Your task to perform on an android device: Go to privacy settings Image 0: 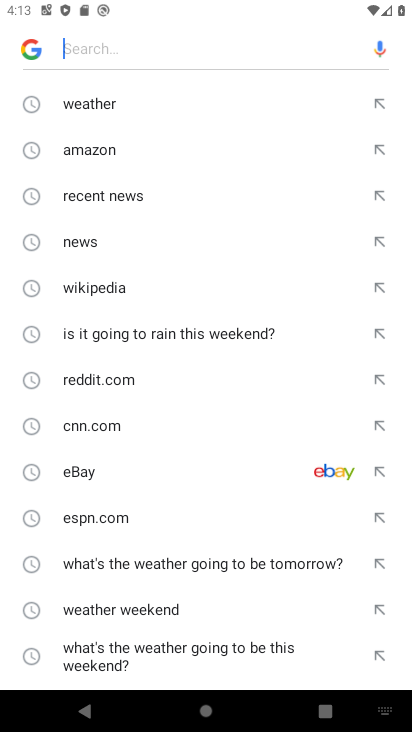
Step 0: press home button
Your task to perform on an android device: Go to privacy settings Image 1: 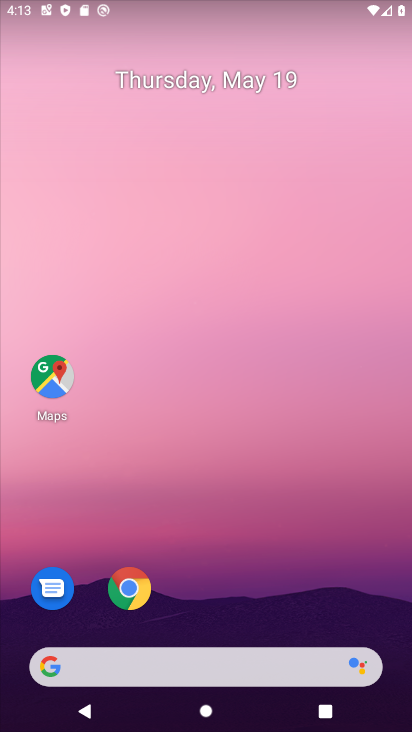
Step 1: drag from (241, 614) to (202, 268)
Your task to perform on an android device: Go to privacy settings Image 2: 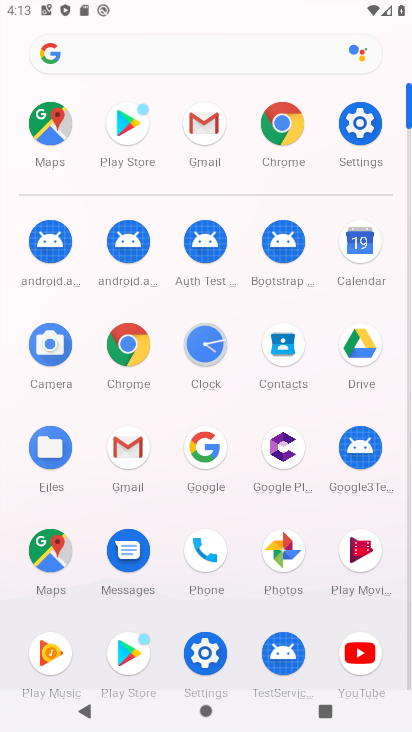
Step 2: click (366, 113)
Your task to perform on an android device: Go to privacy settings Image 3: 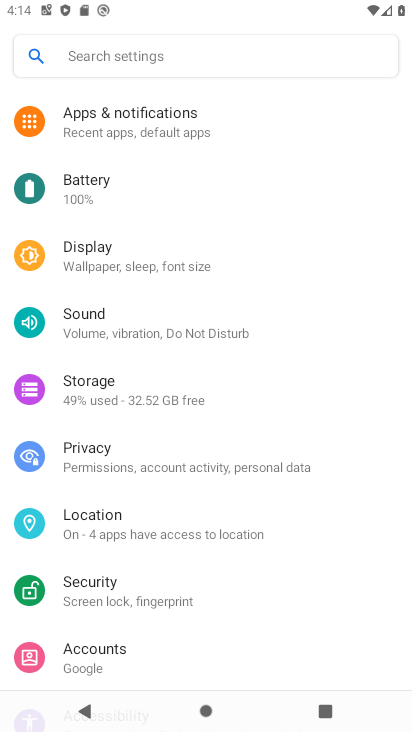
Step 3: click (89, 460)
Your task to perform on an android device: Go to privacy settings Image 4: 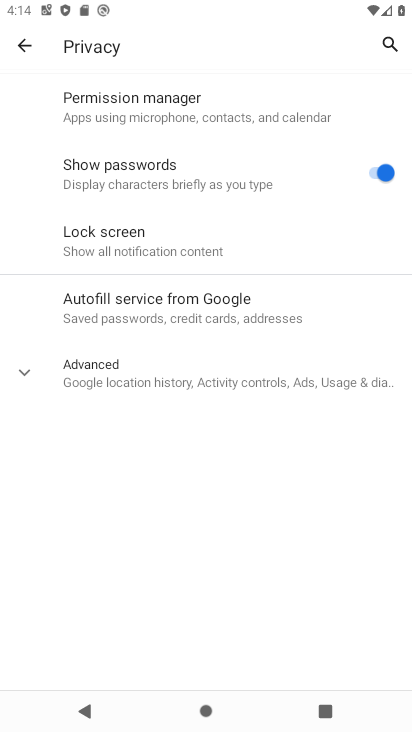
Step 4: task complete